Your task to perform on an android device: Go to Reddit.com Image 0: 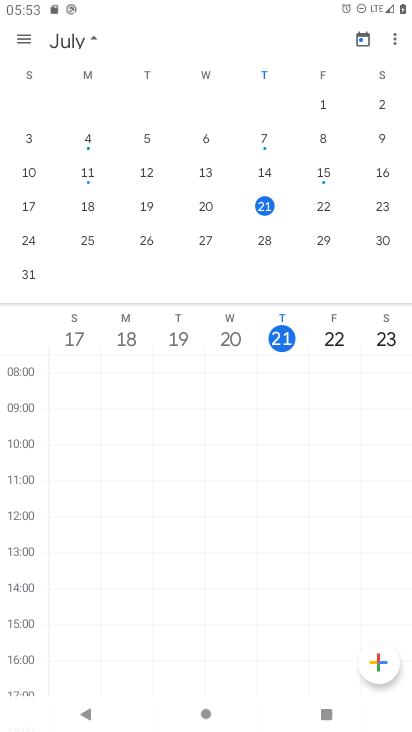
Step 0: press home button
Your task to perform on an android device: Go to Reddit.com Image 1: 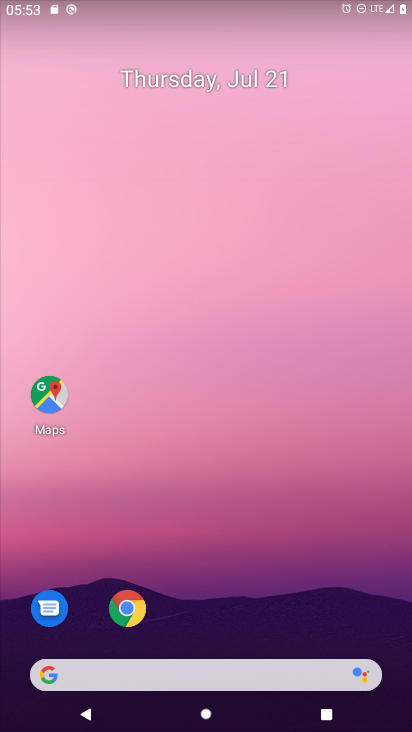
Step 1: drag from (232, 668) to (199, 2)
Your task to perform on an android device: Go to Reddit.com Image 2: 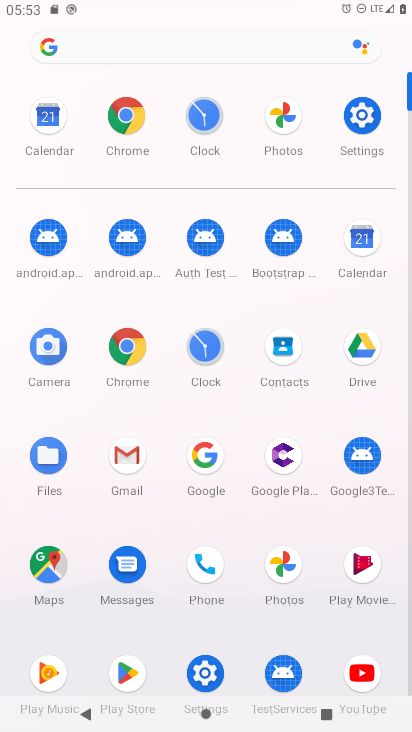
Step 2: click (128, 334)
Your task to perform on an android device: Go to Reddit.com Image 3: 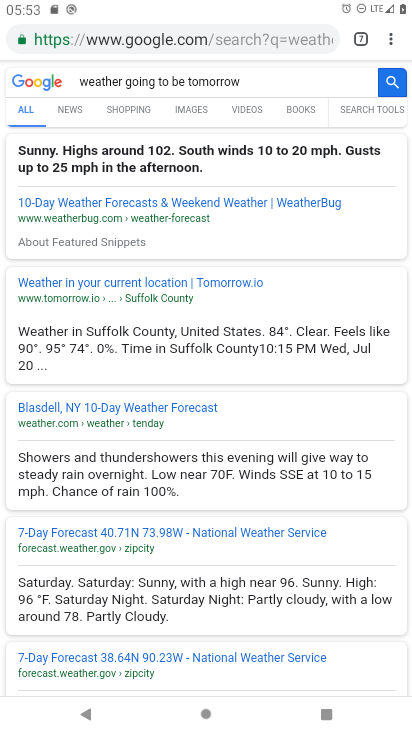
Step 3: click (273, 43)
Your task to perform on an android device: Go to Reddit.com Image 4: 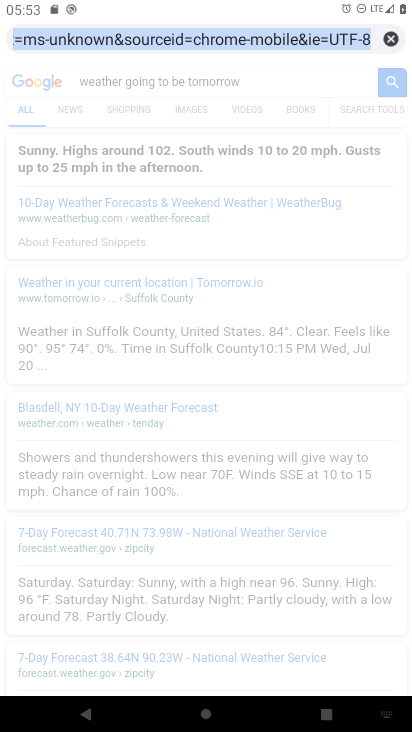
Step 4: type "reddit.com"
Your task to perform on an android device: Go to Reddit.com Image 5: 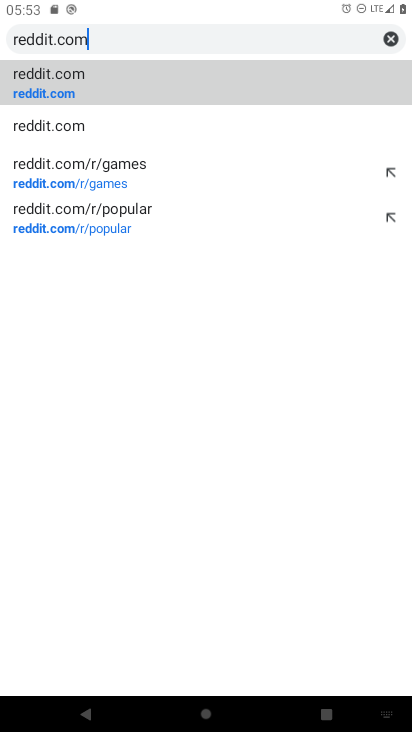
Step 5: click (203, 96)
Your task to perform on an android device: Go to Reddit.com Image 6: 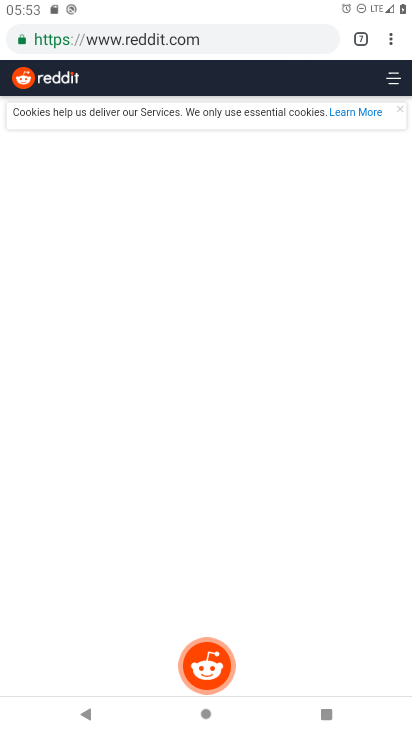
Step 6: task complete